Your task to perform on an android device: turn on the 24-hour format for clock Image 0: 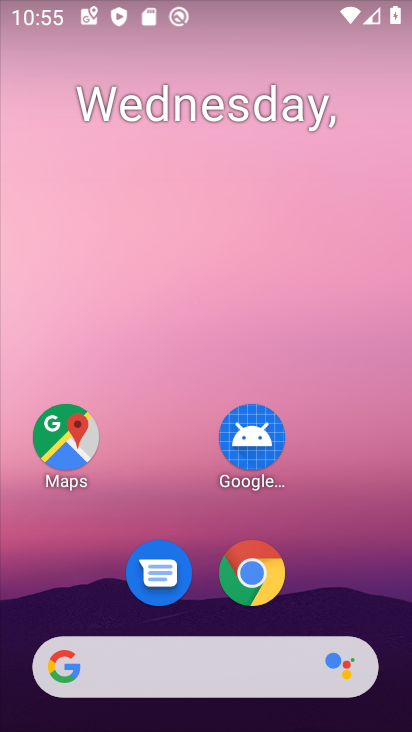
Step 0: drag from (159, 485) to (383, 6)
Your task to perform on an android device: turn on the 24-hour format for clock Image 1: 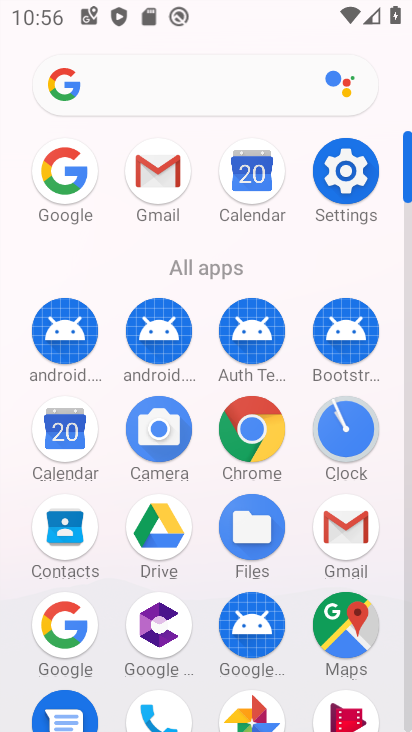
Step 1: click (348, 433)
Your task to perform on an android device: turn on the 24-hour format for clock Image 2: 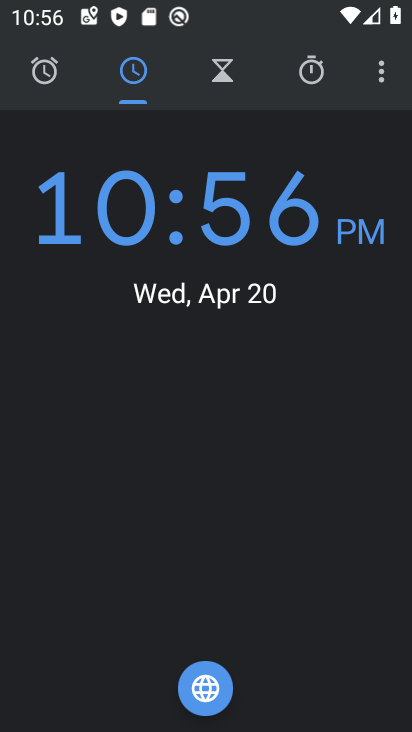
Step 2: click (382, 76)
Your task to perform on an android device: turn on the 24-hour format for clock Image 3: 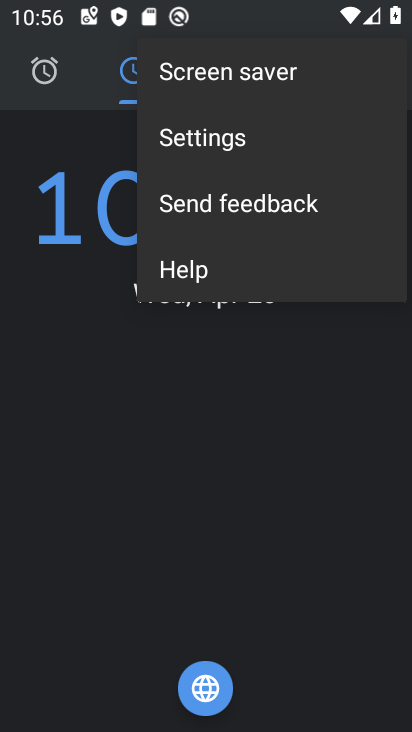
Step 3: click (237, 140)
Your task to perform on an android device: turn on the 24-hour format for clock Image 4: 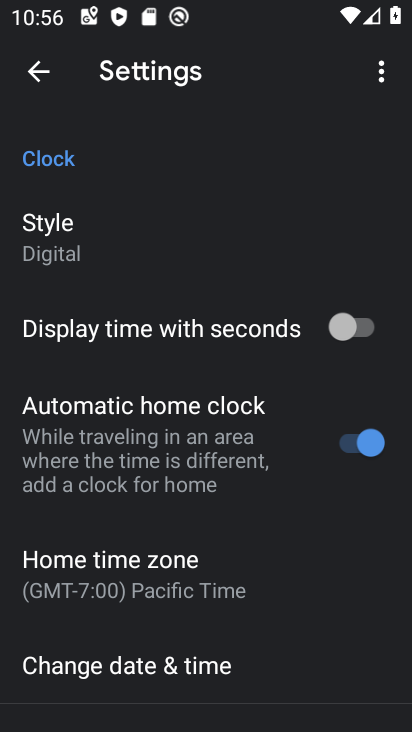
Step 4: click (110, 667)
Your task to perform on an android device: turn on the 24-hour format for clock Image 5: 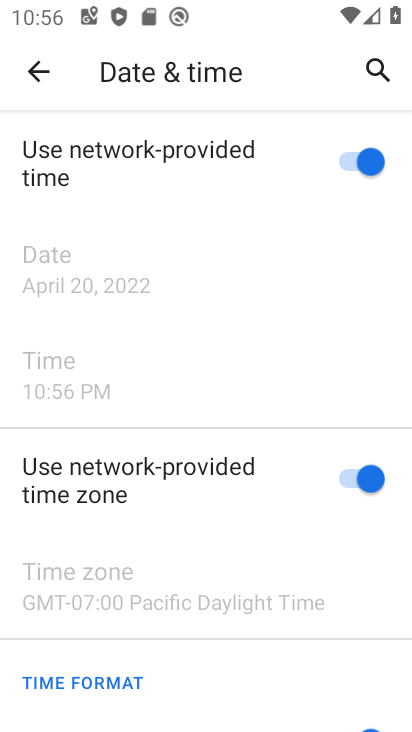
Step 5: drag from (223, 694) to (219, 351)
Your task to perform on an android device: turn on the 24-hour format for clock Image 6: 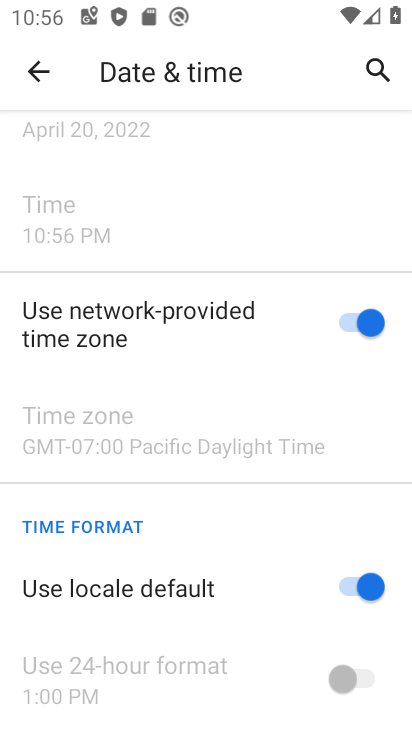
Step 6: click (371, 581)
Your task to perform on an android device: turn on the 24-hour format for clock Image 7: 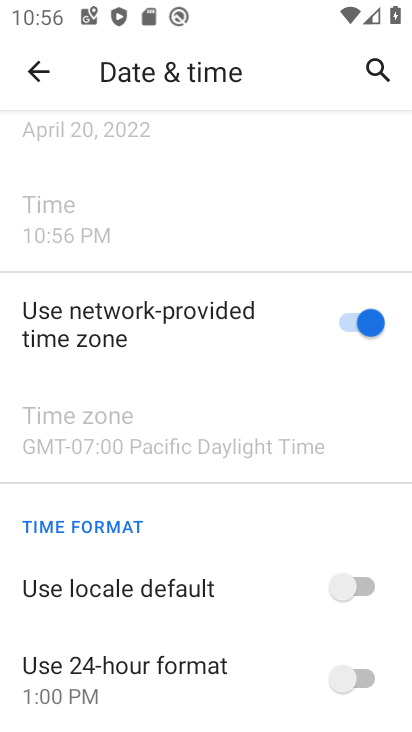
Step 7: click (351, 680)
Your task to perform on an android device: turn on the 24-hour format for clock Image 8: 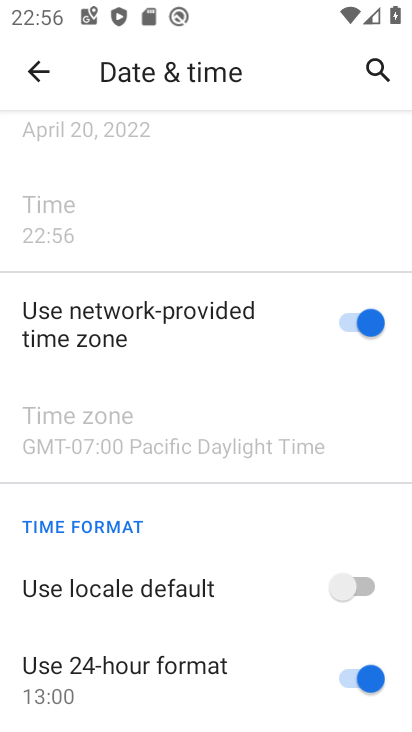
Step 8: task complete